Your task to perform on an android device: turn on bluetooth scan Image 0: 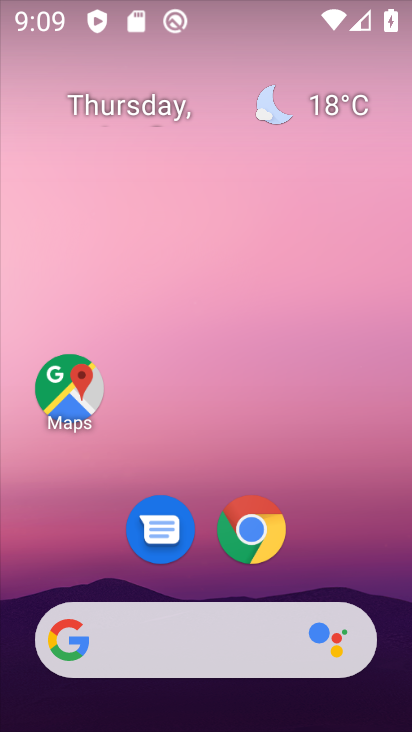
Step 0: drag from (389, 694) to (360, 38)
Your task to perform on an android device: turn on bluetooth scan Image 1: 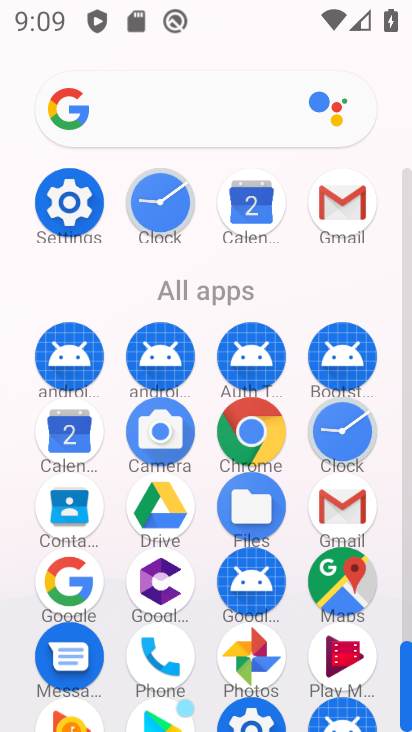
Step 1: click (65, 216)
Your task to perform on an android device: turn on bluetooth scan Image 2: 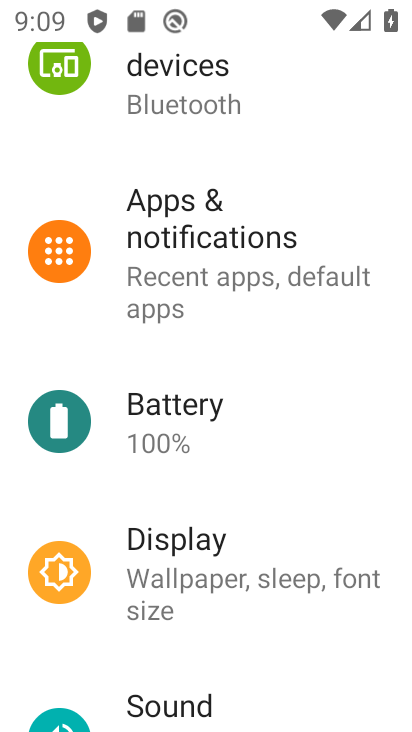
Step 2: drag from (334, 705) to (322, 190)
Your task to perform on an android device: turn on bluetooth scan Image 3: 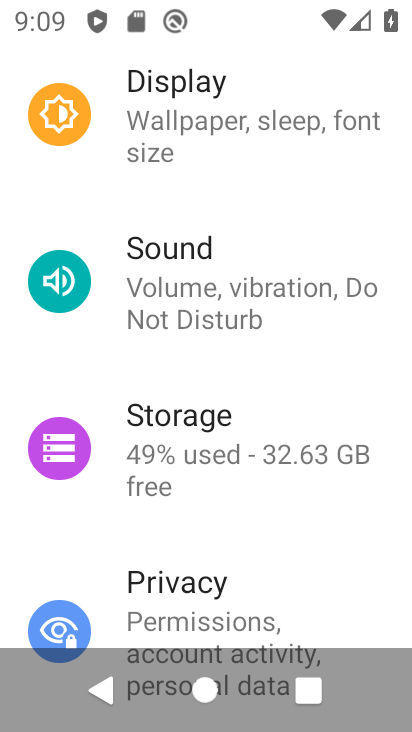
Step 3: drag from (338, 633) to (349, 142)
Your task to perform on an android device: turn on bluetooth scan Image 4: 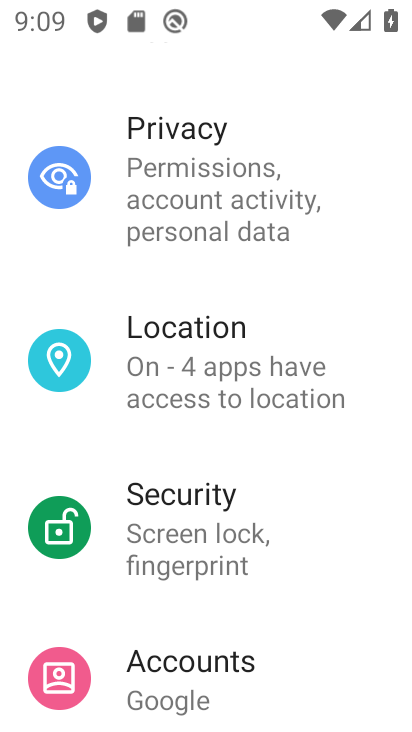
Step 4: click (201, 341)
Your task to perform on an android device: turn on bluetooth scan Image 5: 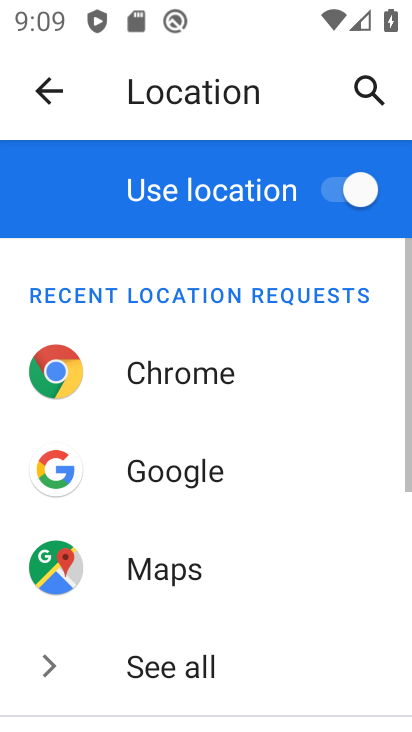
Step 5: drag from (286, 700) to (316, 260)
Your task to perform on an android device: turn on bluetooth scan Image 6: 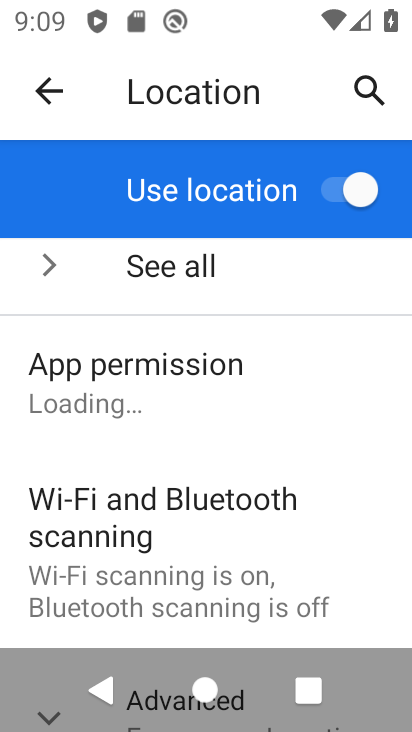
Step 6: click (177, 539)
Your task to perform on an android device: turn on bluetooth scan Image 7: 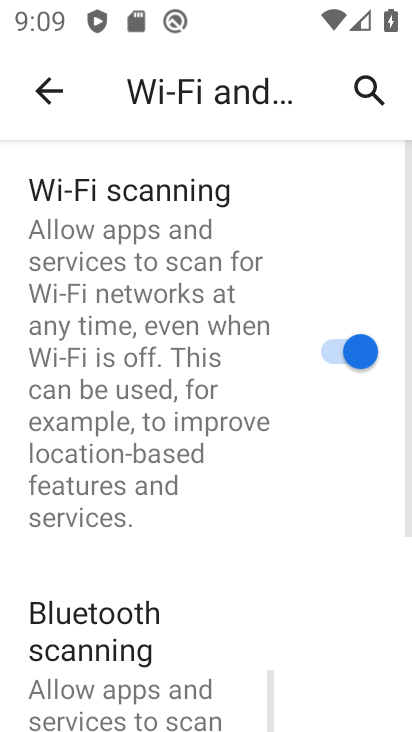
Step 7: drag from (305, 630) to (323, 306)
Your task to perform on an android device: turn on bluetooth scan Image 8: 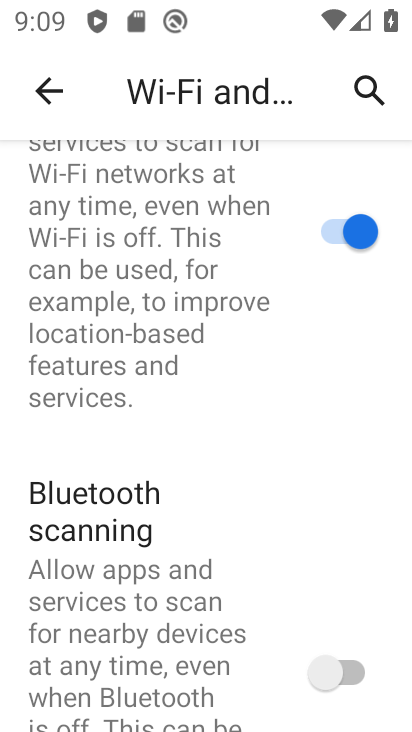
Step 8: click (343, 668)
Your task to perform on an android device: turn on bluetooth scan Image 9: 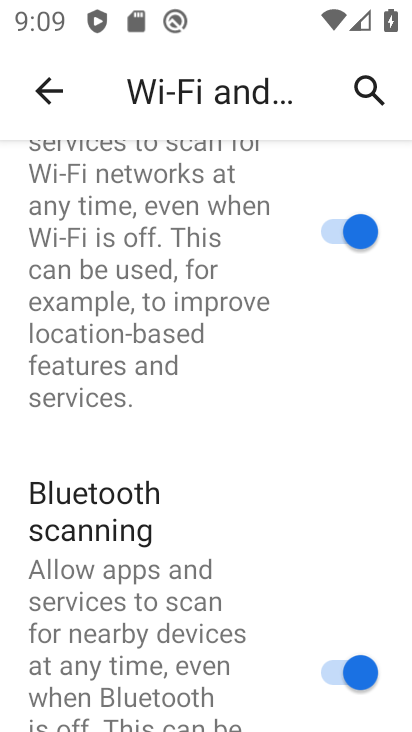
Step 9: task complete